Your task to perform on an android device: Go to Reddit.com Image 0: 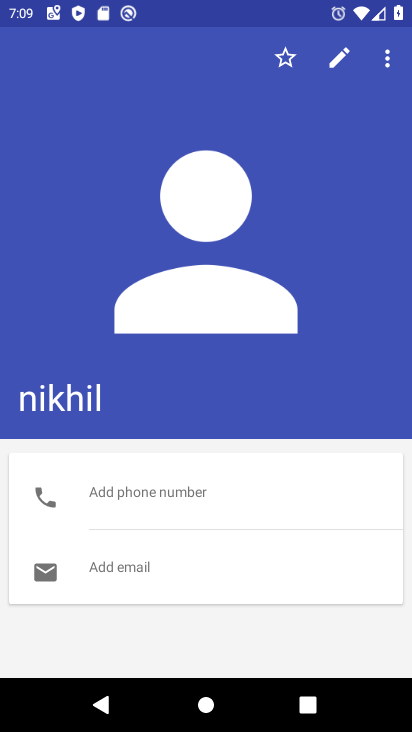
Step 0: press home button
Your task to perform on an android device: Go to Reddit.com Image 1: 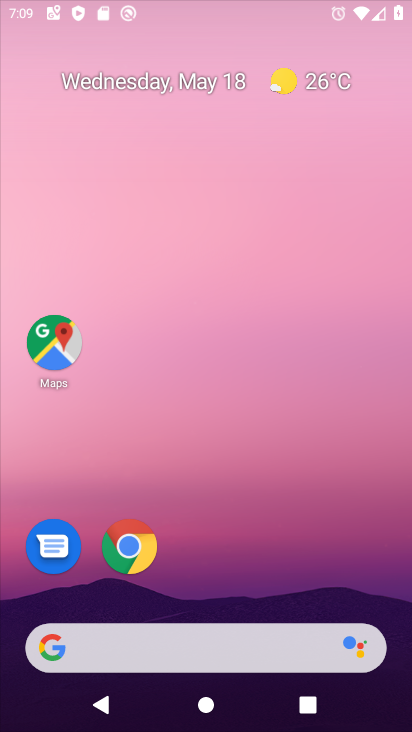
Step 1: drag from (396, 623) to (254, 3)
Your task to perform on an android device: Go to Reddit.com Image 2: 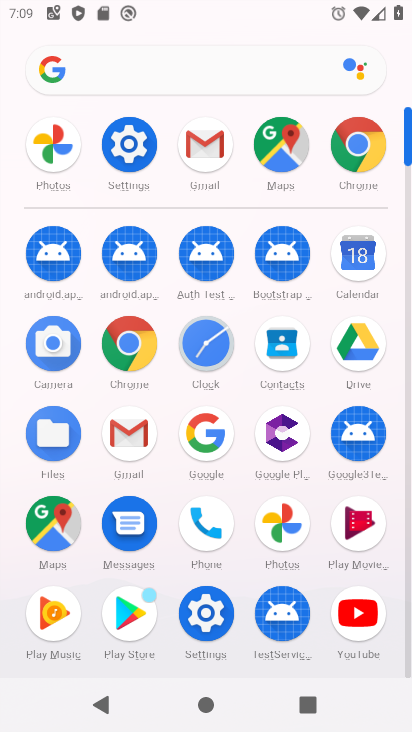
Step 2: click (215, 432)
Your task to perform on an android device: Go to Reddit.com Image 3: 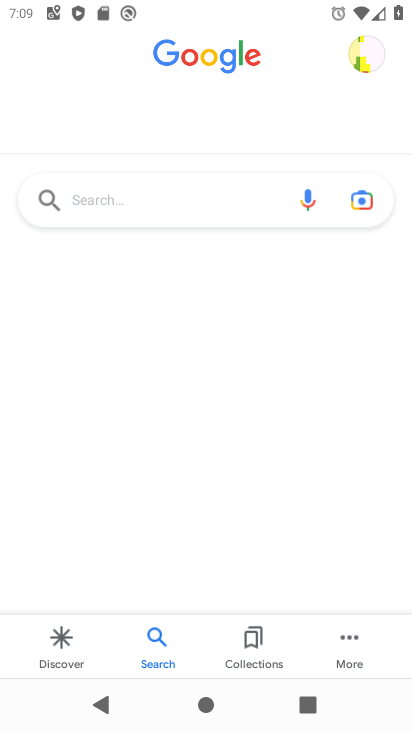
Step 3: click (117, 199)
Your task to perform on an android device: Go to Reddit.com Image 4: 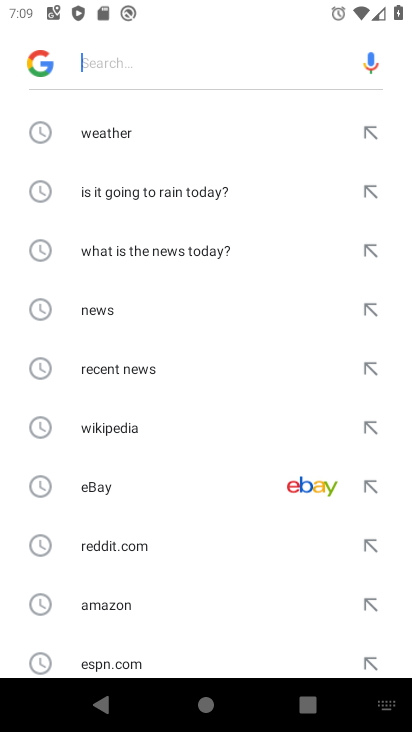
Step 4: click (130, 539)
Your task to perform on an android device: Go to Reddit.com Image 5: 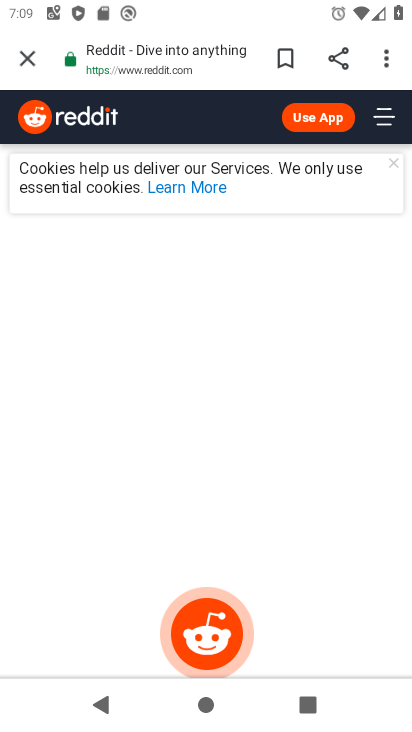
Step 5: task complete